Your task to perform on an android device: find snoozed emails in the gmail app Image 0: 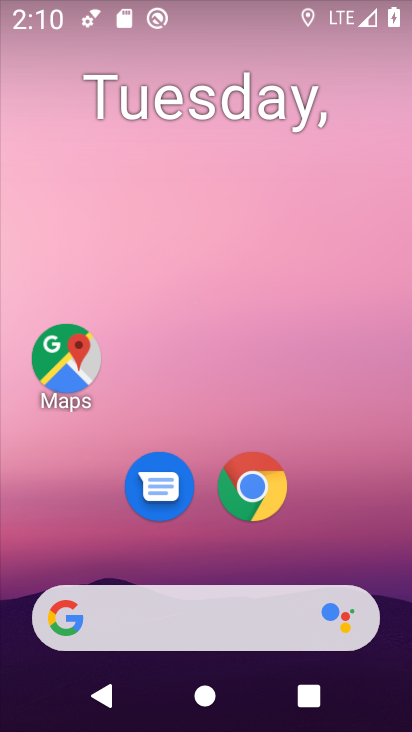
Step 0: press home button
Your task to perform on an android device: find snoozed emails in the gmail app Image 1: 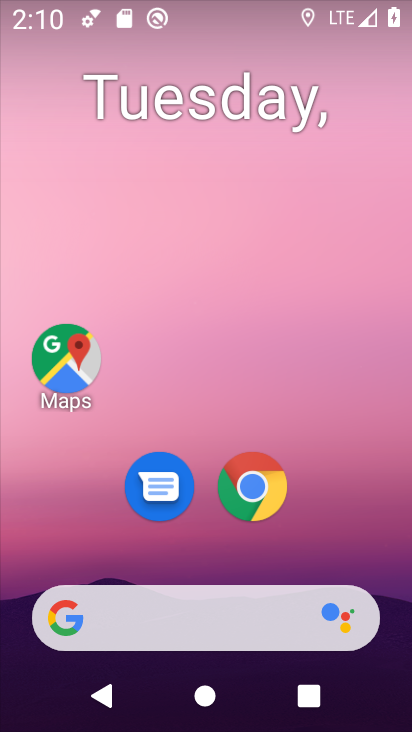
Step 1: drag from (335, 549) to (363, 94)
Your task to perform on an android device: find snoozed emails in the gmail app Image 2: 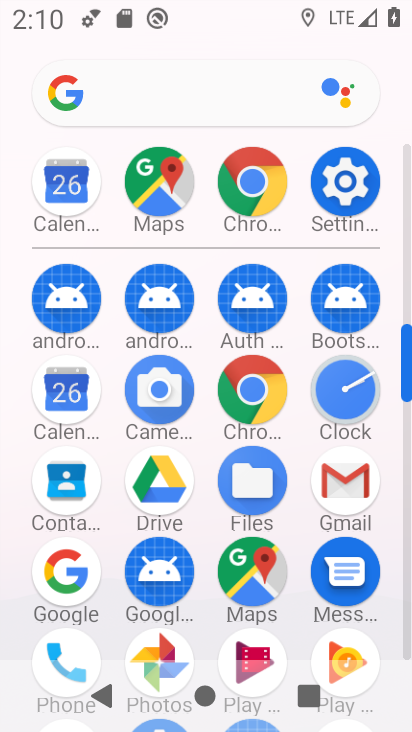
Step 2: click (353, 479)
Your task to perform on an android device: find snoozed emails in the gmail app Image 3: 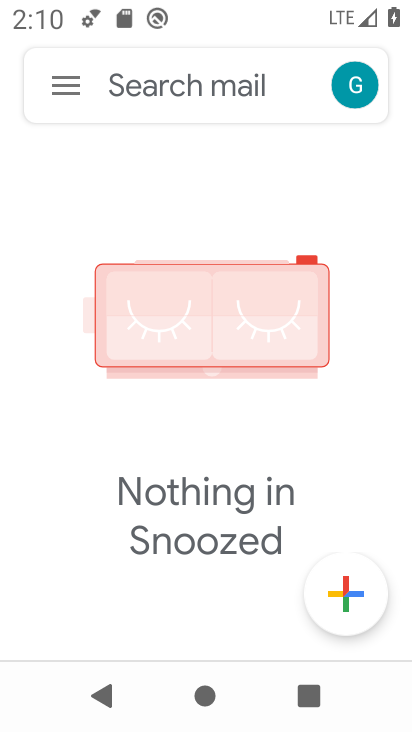
Step 3: click (64, 82)
Your task to perform on an android device: find snoozed emails in the gmail app Image 4: 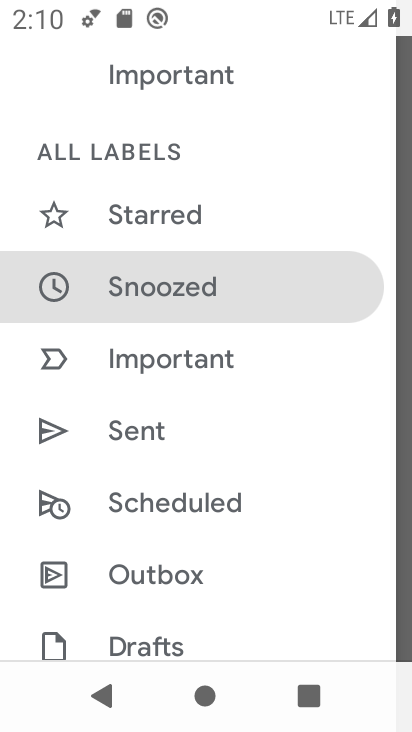
Step 4: click (271, 294)
Your task to perform on an android device: find snoozed emails in the gmail app Image 5: 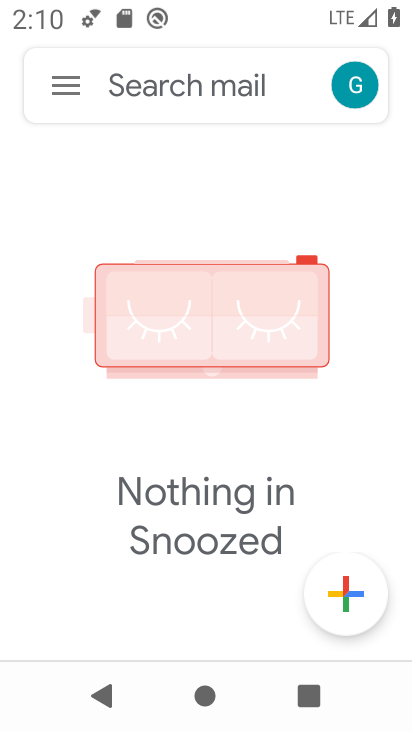
Step 5: task complete